Your task to perform on an android device: Go to calendar. Show me events next week Image 0: 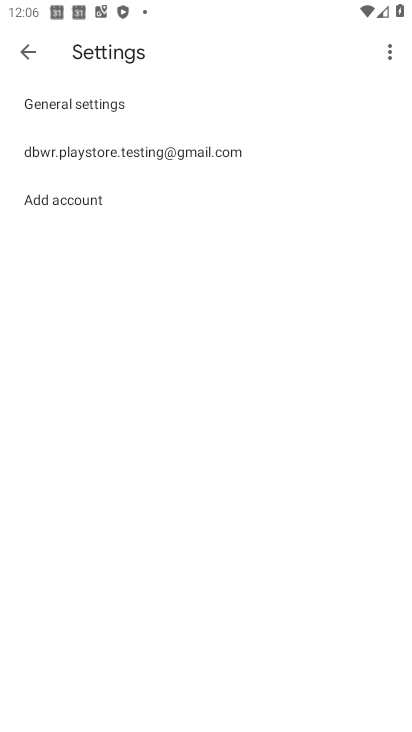
Step 0: press home button
Your task to perform on an android device: Go to calendar. Show me events next week Image 1: 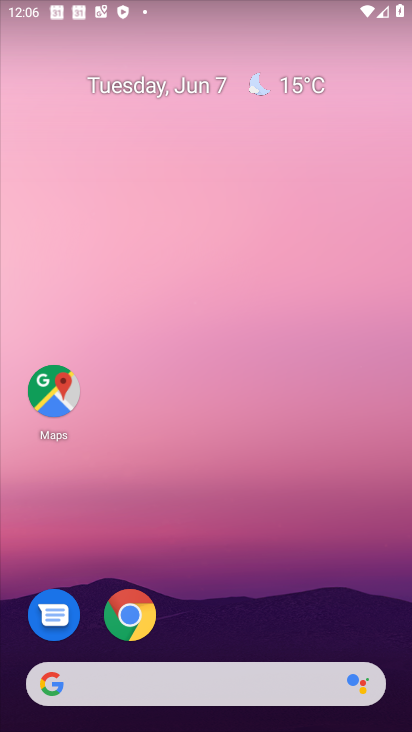
Step 1: drag from (189, 623) to (234, 102)
Your task to perform on an android device: Go to calendar. Show me events next week Image 2: 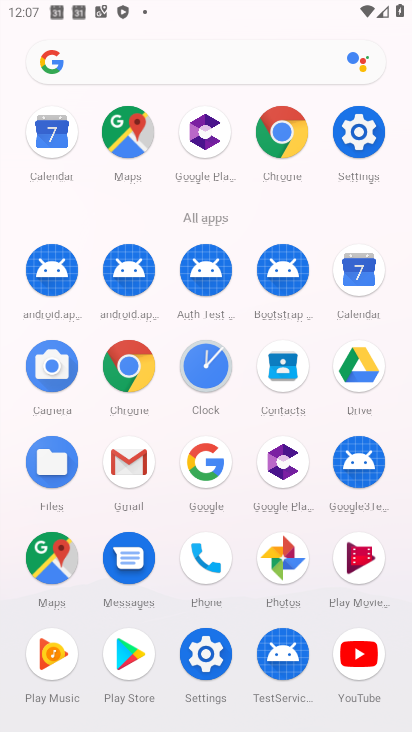
Step 2: click (369, 290)
Your task to perform on an android device: Go to calendar. Show me events next week Image 3: 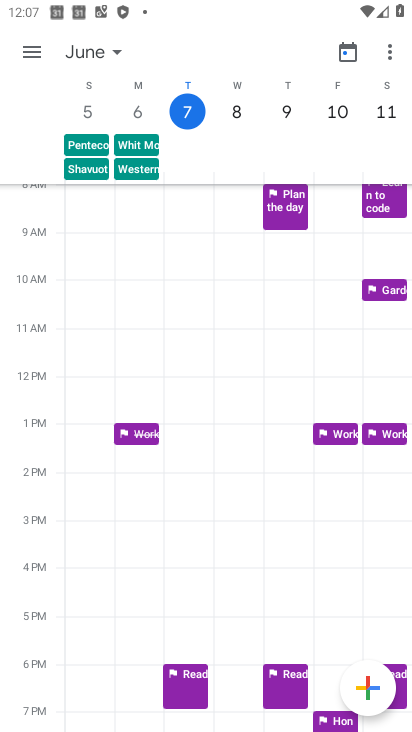
Step 3: click (95, 55)
Your task to perform on an android device: Go to calendar. Show me events next week Image 4: 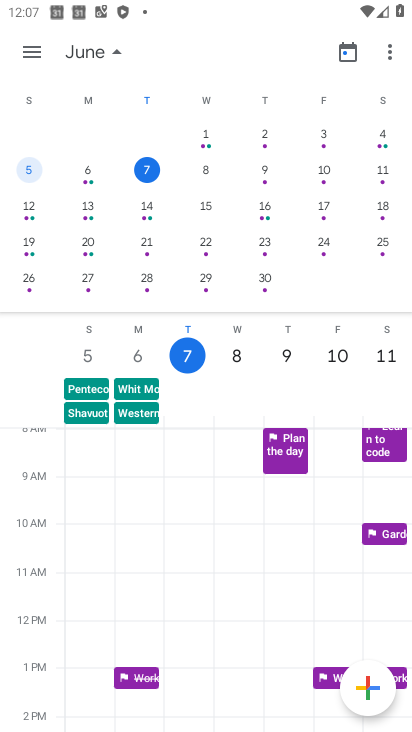
Step 4: click (29, 214)
Your task to perform on an android device: Go to calendar. Show me events next week Image 5: 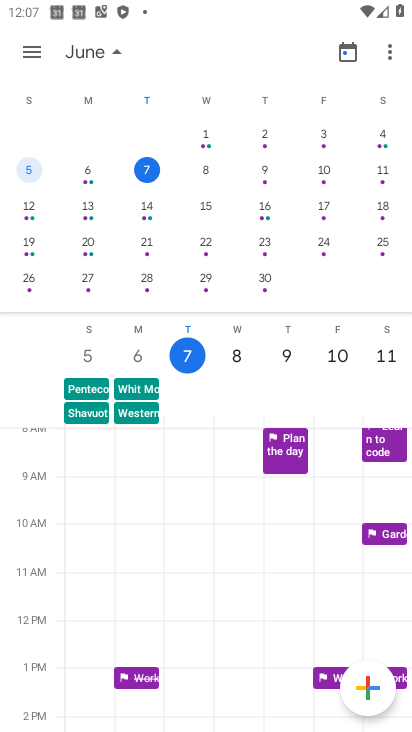
Step 5: click (29, 214)
Your task to perform on an android device: Go to calendar. Show me events next week Image 6: 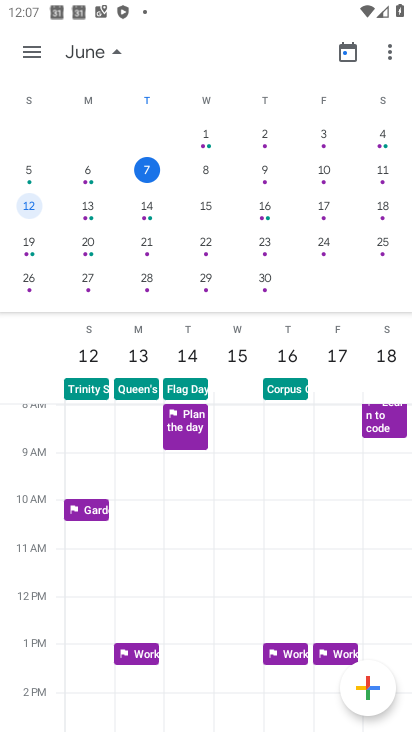
Step 6: task complete